Your task to perform on an android device: toggle show notifications on the lock screen Image 0: 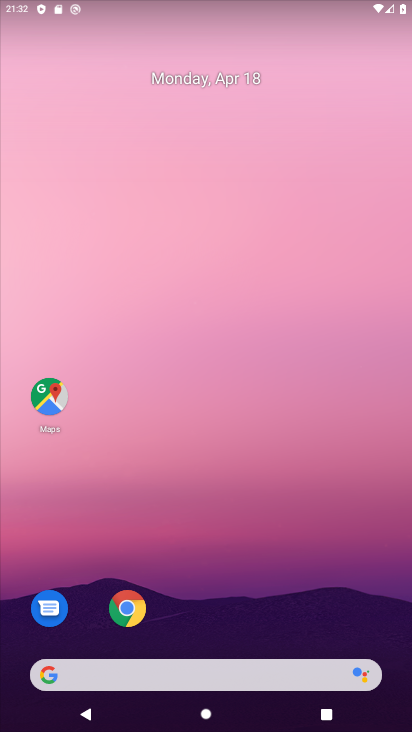
Step 0: drag from (243, 623) to (237, 158)
Your task to perform on an android device: toggle show notifications on the lock screen Image 1: 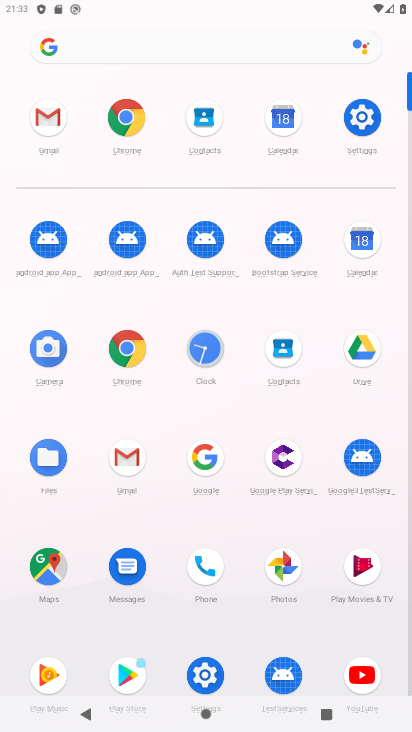
Step 1: click (354, 116)
Your task to perform on an android device: toggle show notifications on the lock screen Image 2: 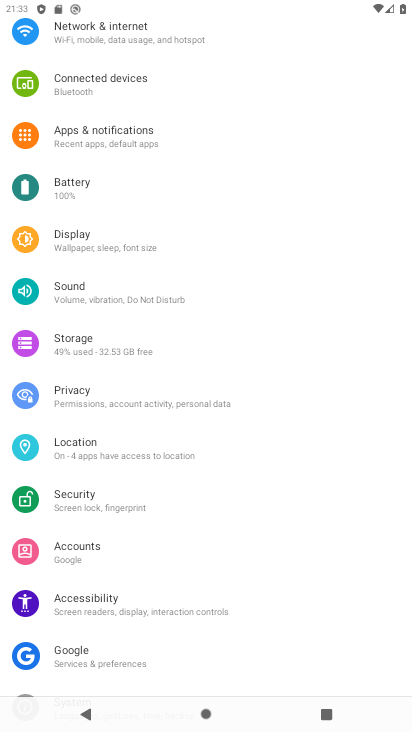
Step 2: drag from (142, 114) to (154, 431)
Your task to perform on an android device: toggle show notifications on the lock screen Image 3: 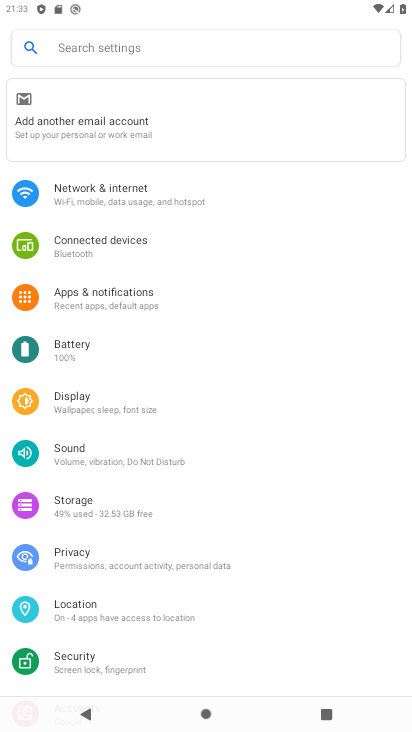
Step 3: click (131, 298)
Your task to perform on an android device: toggle show notifications on the lock screen Image 4: 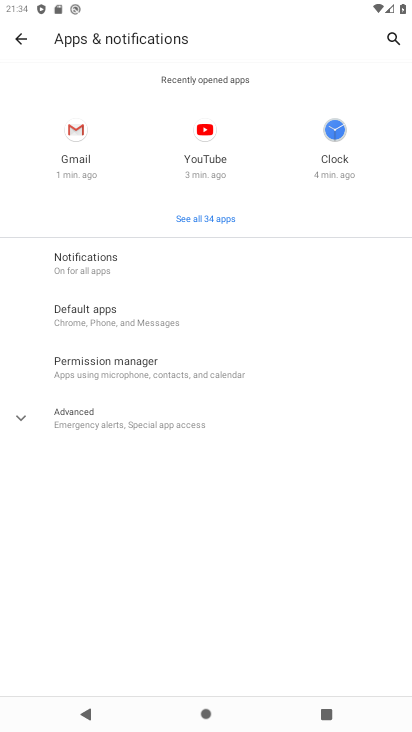
Step 4: click (95, 262)
Your task to perform on an android device: toggle show notifications on the lock screen Image 5: 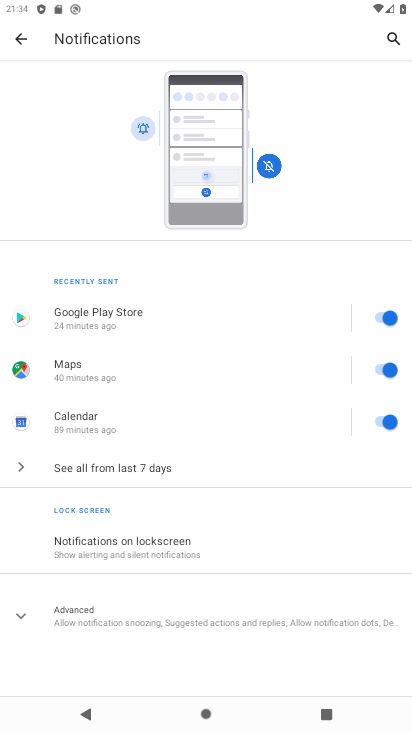
Step 5: drag from (228, 456) to (243, 349)
Your task to perform on an android device: toggle show notifications on the lock screen Image 6: 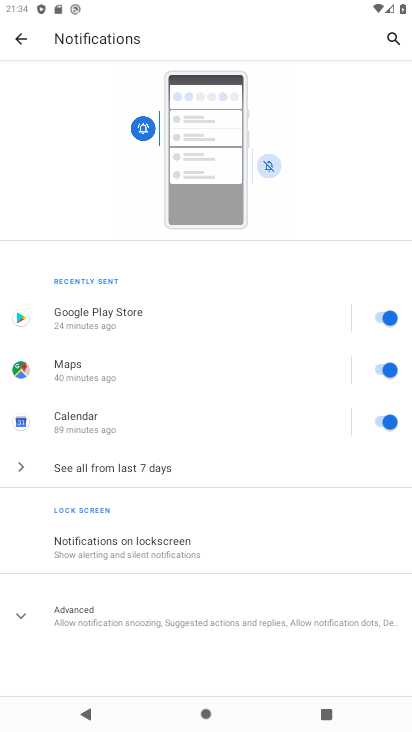
Step 6: click (136, 542)
Your task to perform on an android device: toggle show notifications on the lock screen Image 7: 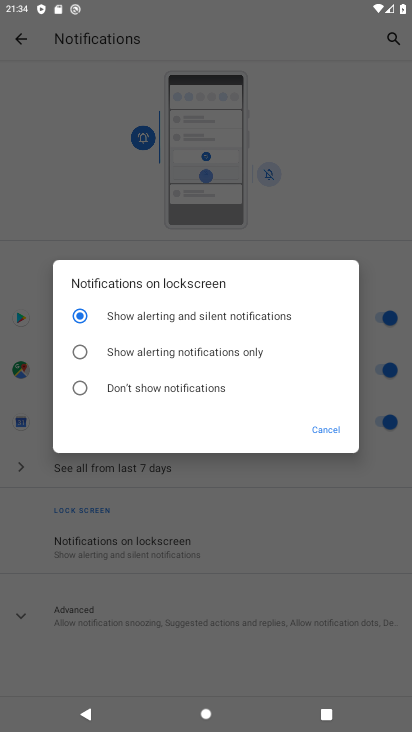
Step 7: click (81, 387)
Your task to perform on an android device: toggle show notifications on the lock screen Image 8: 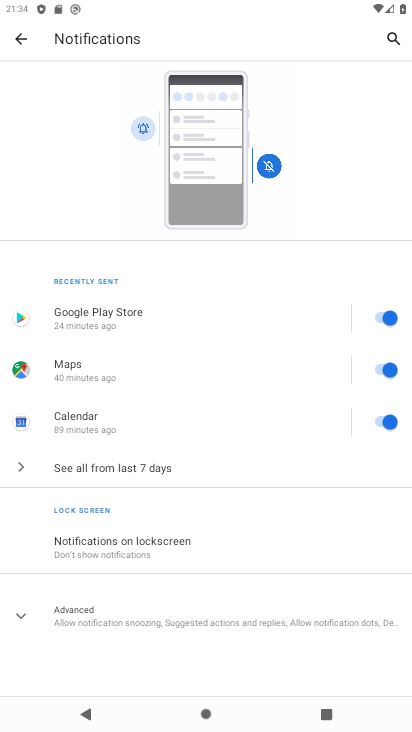
Step 8: task complete